Your task to perform on an android device: Do I have any events this weekend? Image 0: 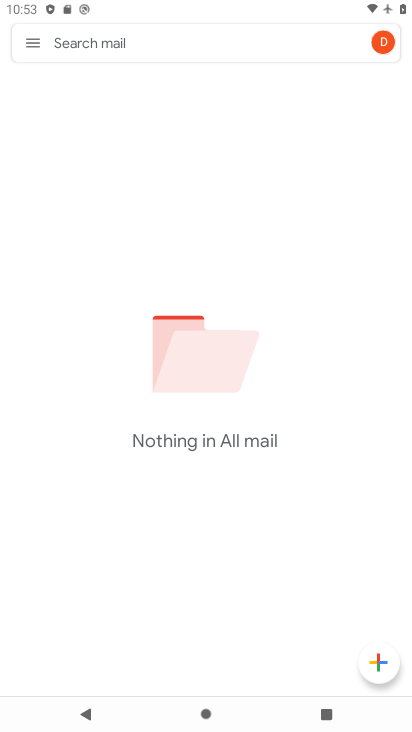
Step 0: press home button
Your task to perform on an android device: Do I have any events this weekend? Image 1: 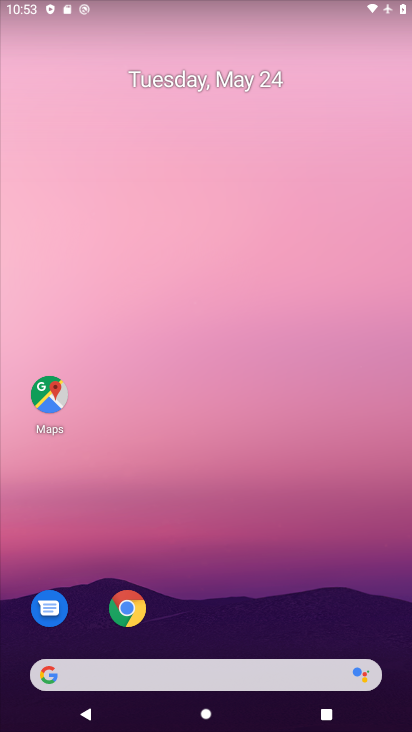
Step 1: drag from (379, 620) to (320, 157)
Your task to perform on an android device: Do I have any events this weekend? Image 2: 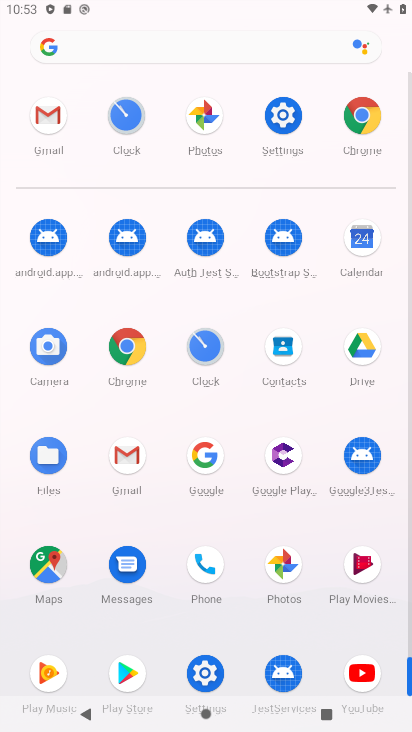
Step 2: click (360, 236)
Your task to perform on an android device: Do I have any events this weekend? Image 3: 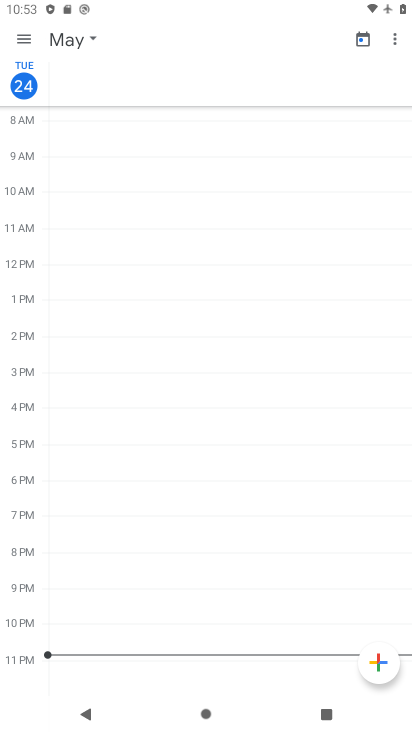
Step 3: click (24, 38)
Your task to perform on an android device: Do I have any events this weekend? Image 4: 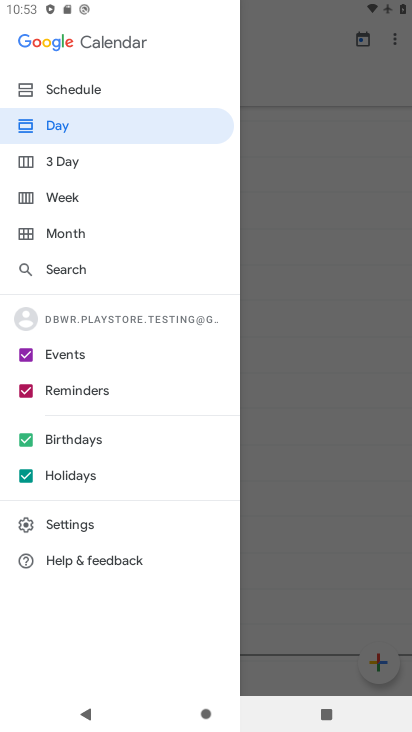
Step 4: click (58, 191)
Your task to perform on an android device: Do I have any events this weekend? Image 5: 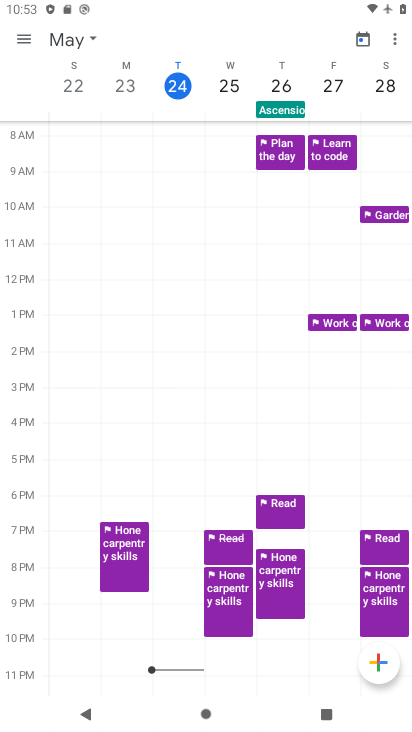
Step 5: task complete